Your task to perform on an android device: Go to privacy settings Image 0: 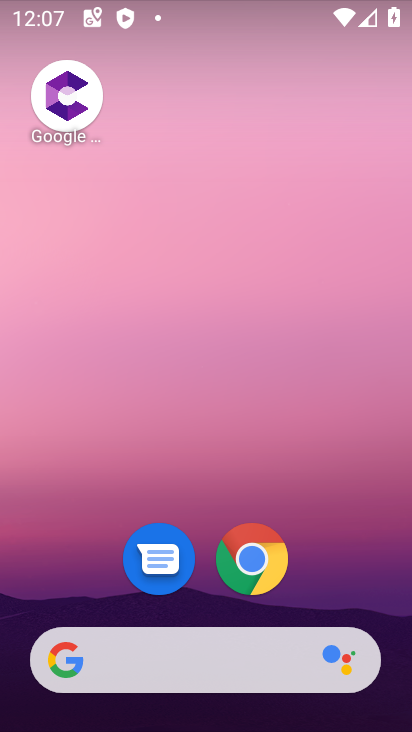
Step 0: drag from (219, 601) to (286, 260)
Your task to perform on an android device: Go to privacy settings Image 1: 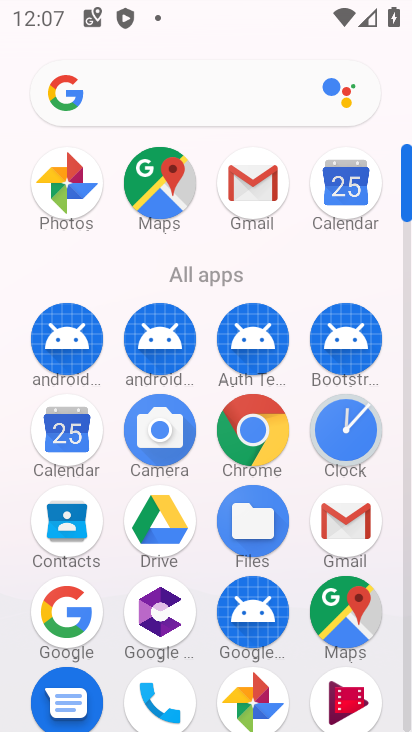
Step 1: drag from (198, 292) to (263, 33)
Your task to perform on an android device: Go to privacy settings Image 2: 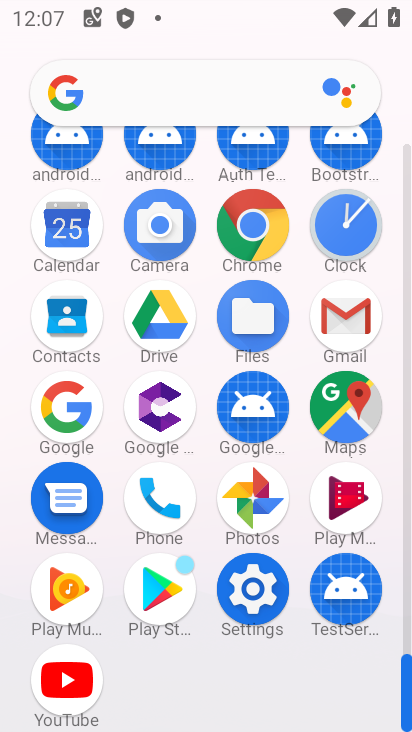
Step 2: click (269, 606)
Your task to perform on an android device: Go to privacy settings Image 3: 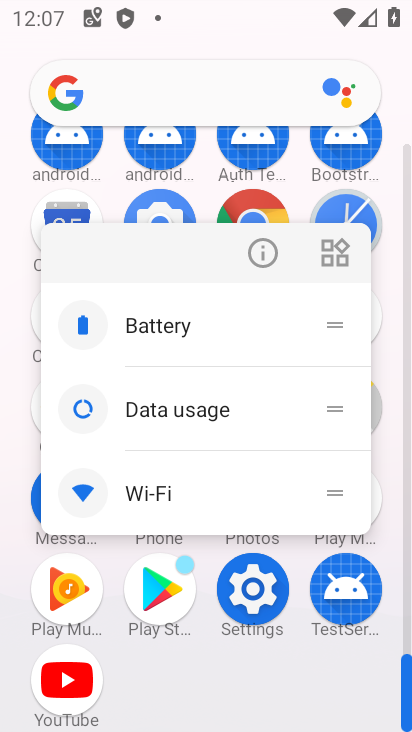
Step 3: click (250, 252)
Your task to perform on an android device: Go to privacy settings Image 4: 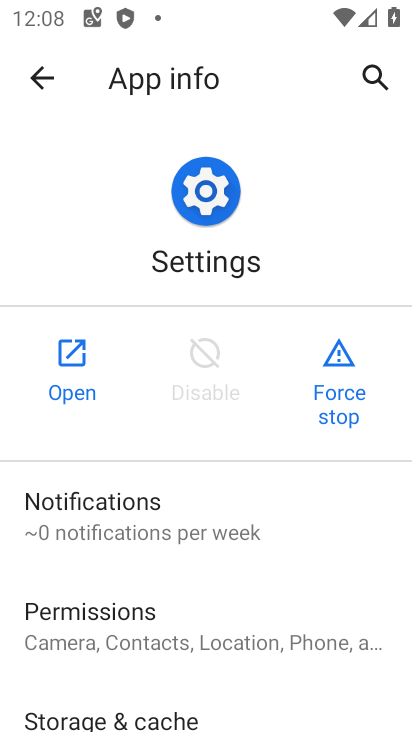
Step 4: click (89, 370)
Your task to perform on an android device: Go to privacy settings Image 5: 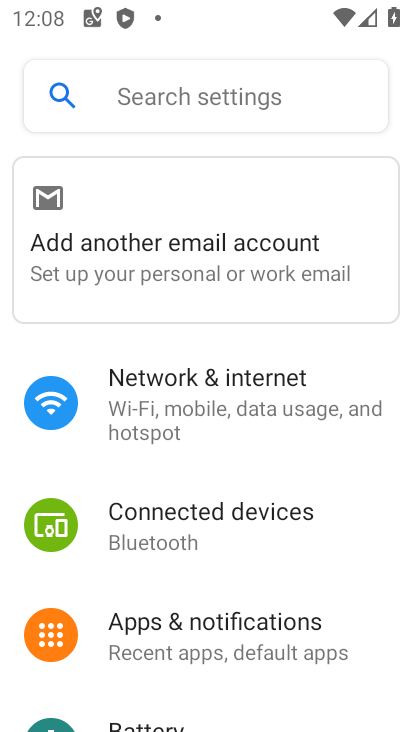
Step 5: drag from (247, 694) to (305, 263)
Your task to perform on an android device: Go to privacy settings Image 6: 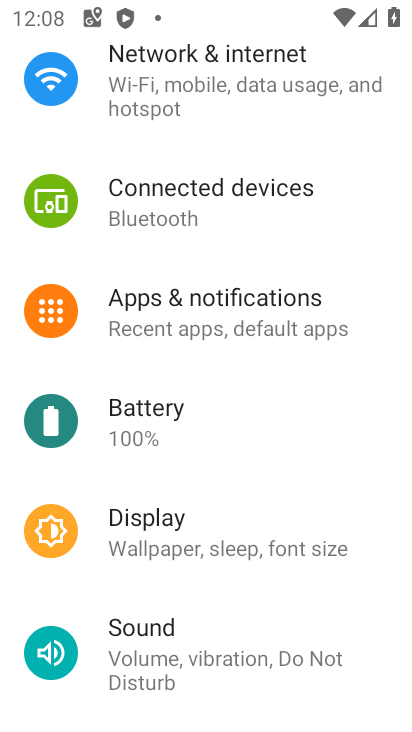
Step 6: drag from (221, 613) to (306, 190)
Your task to perform on an android device: Go to privacy settings Image 7: 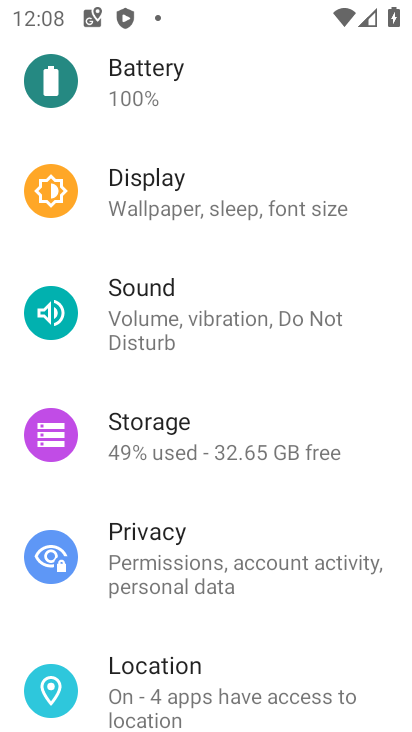
Step 7: click (210, 571)
Your task to perform on an android device: Go to privacy settings Image 8: 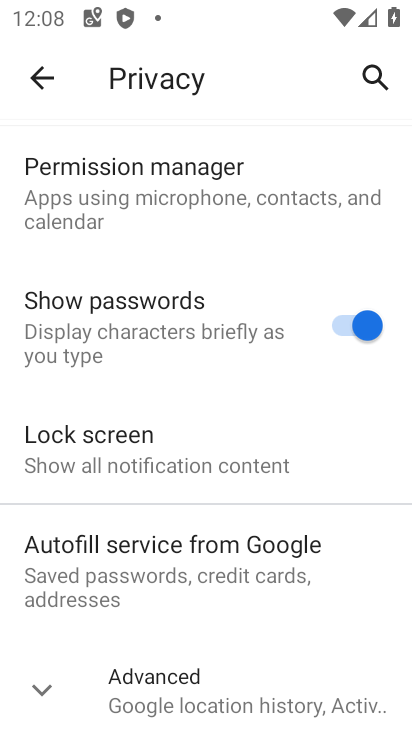
Step 8: task complete